Your task to perform on an android device: check battery use Image 0: 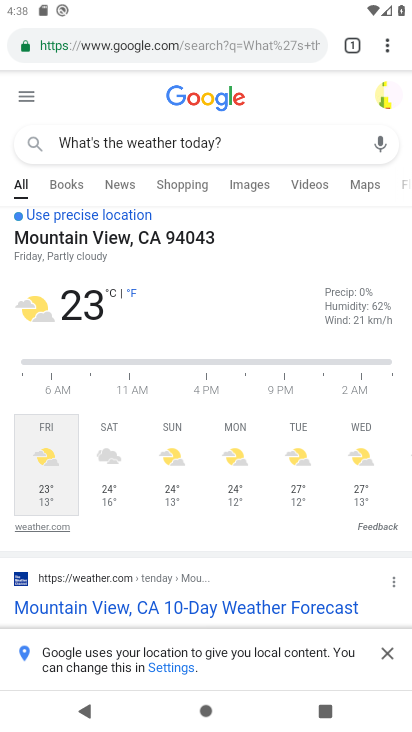
Step 0: press back button
Your task to perform on an android device: check battery use Image 1: 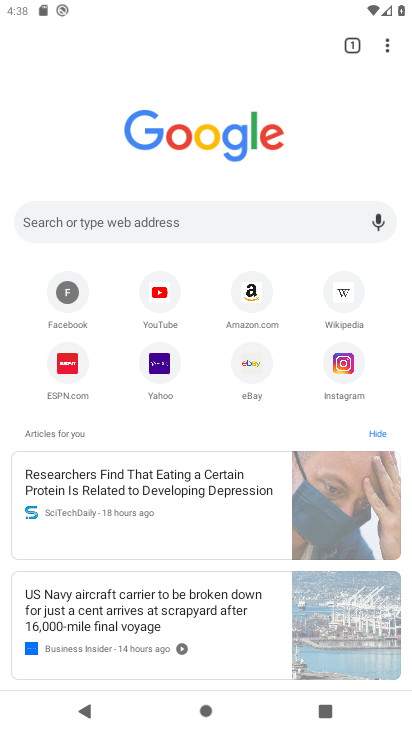
Step 1: press home button
Your task to perform on an android device: check battery use Image 2: 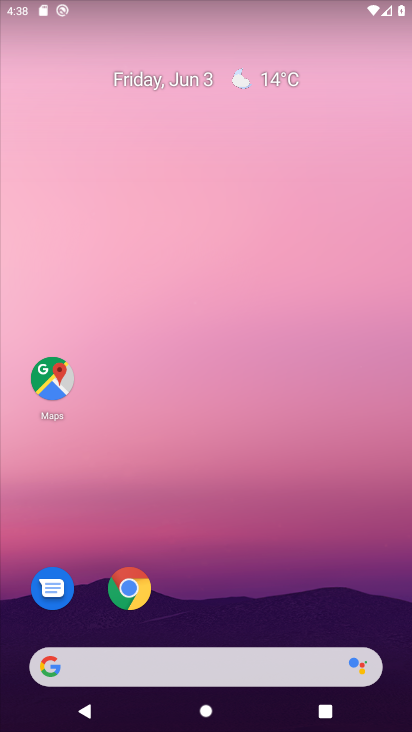
Step 2: press back button
Your task to perform on an android device: check battery use Image 3: 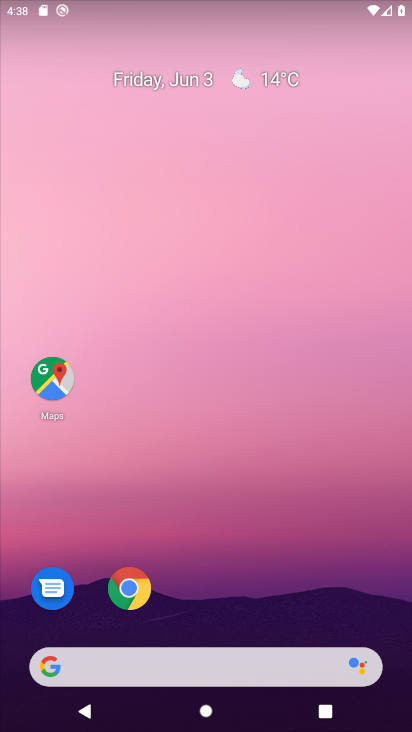
Step 3: drag from (240, 582) to (241, 14)
Your task to perform on an android device: check battery use Image 4: 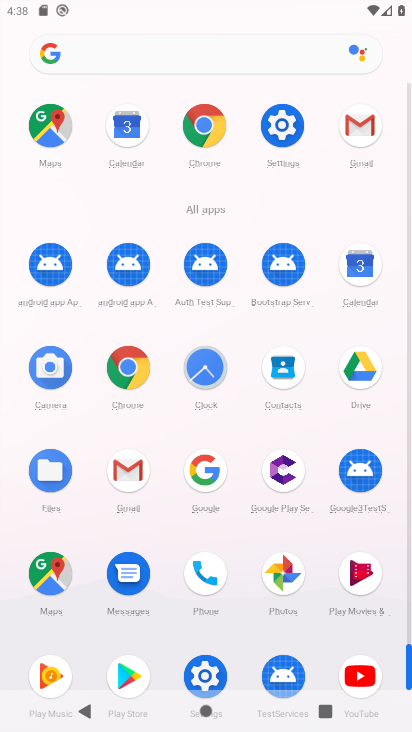
Step 4: click (284, 122)
Your task to perform on an android device: check battery use Image 5: 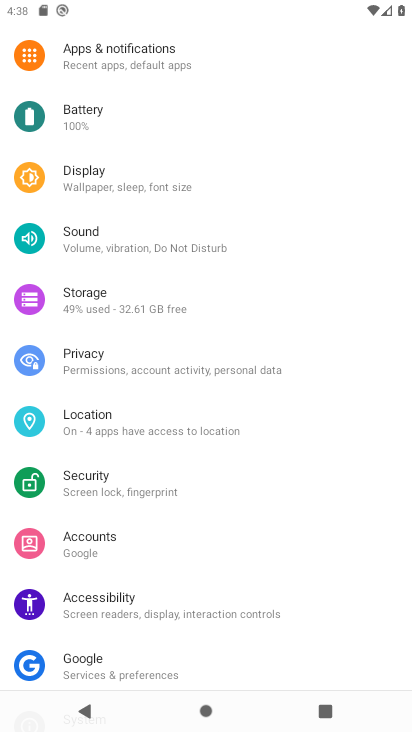
Step 5: drag from (155, 142) to (163, 445)
Your task to perform on an android device: check battery use Image 6: 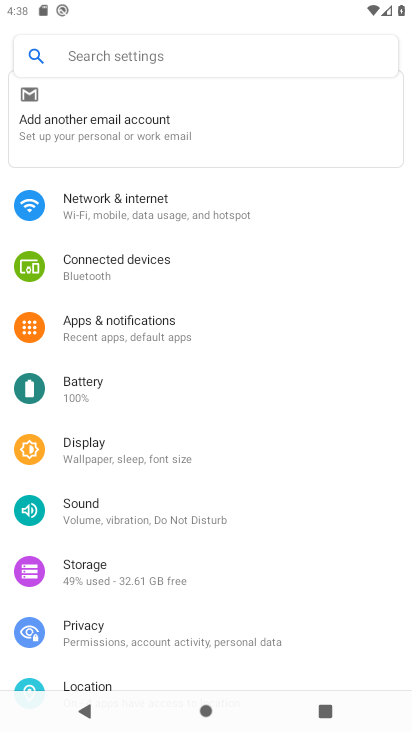
Step 6: click (110, 386)
Your task to perform on an android device: check battery use Image 7: 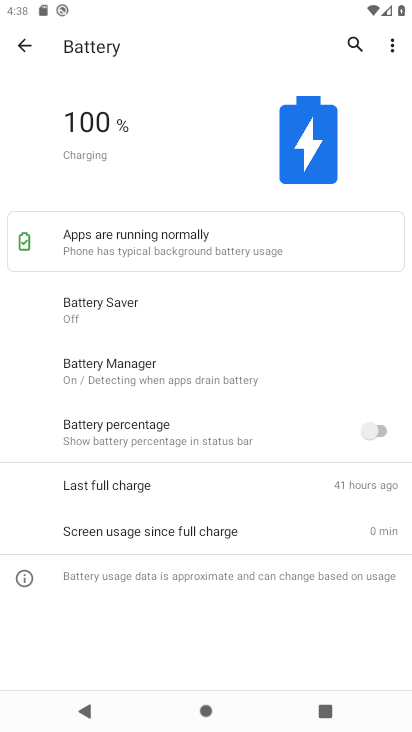
Step 7: click (109, 385)
Your task to perform on an android device: check battery use Image 8: 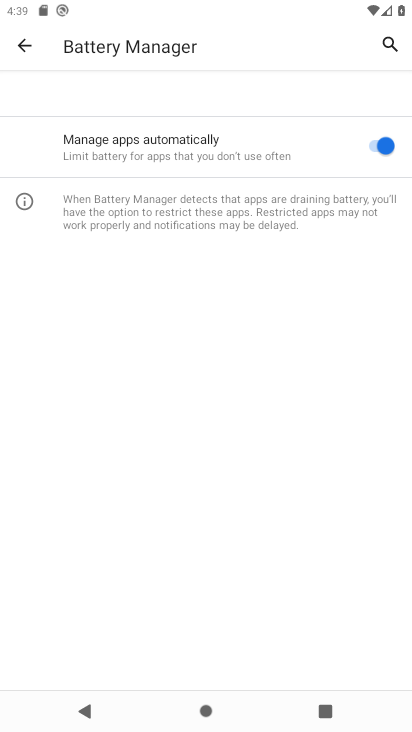
Step 8: click (26, 49)
Your task to perform on an android device: check battery use Image 9: 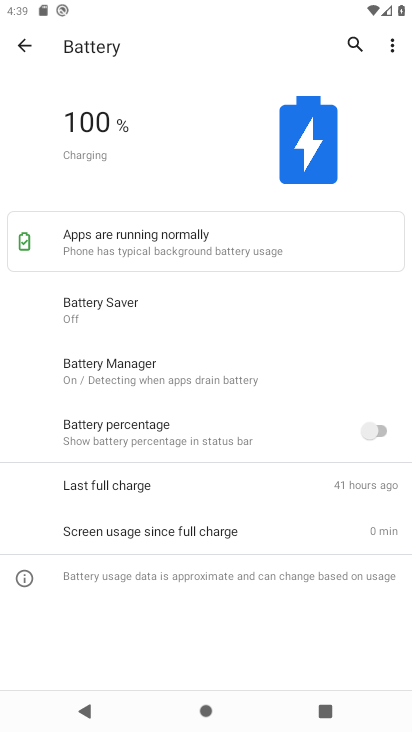
Step 9: task complete